Your task to perform on an android device: Show the shopping cart on newegg.com. Search for logitech g933 on newegg.com, select the first entry, add it to the cart, then select checkout. Image 0: 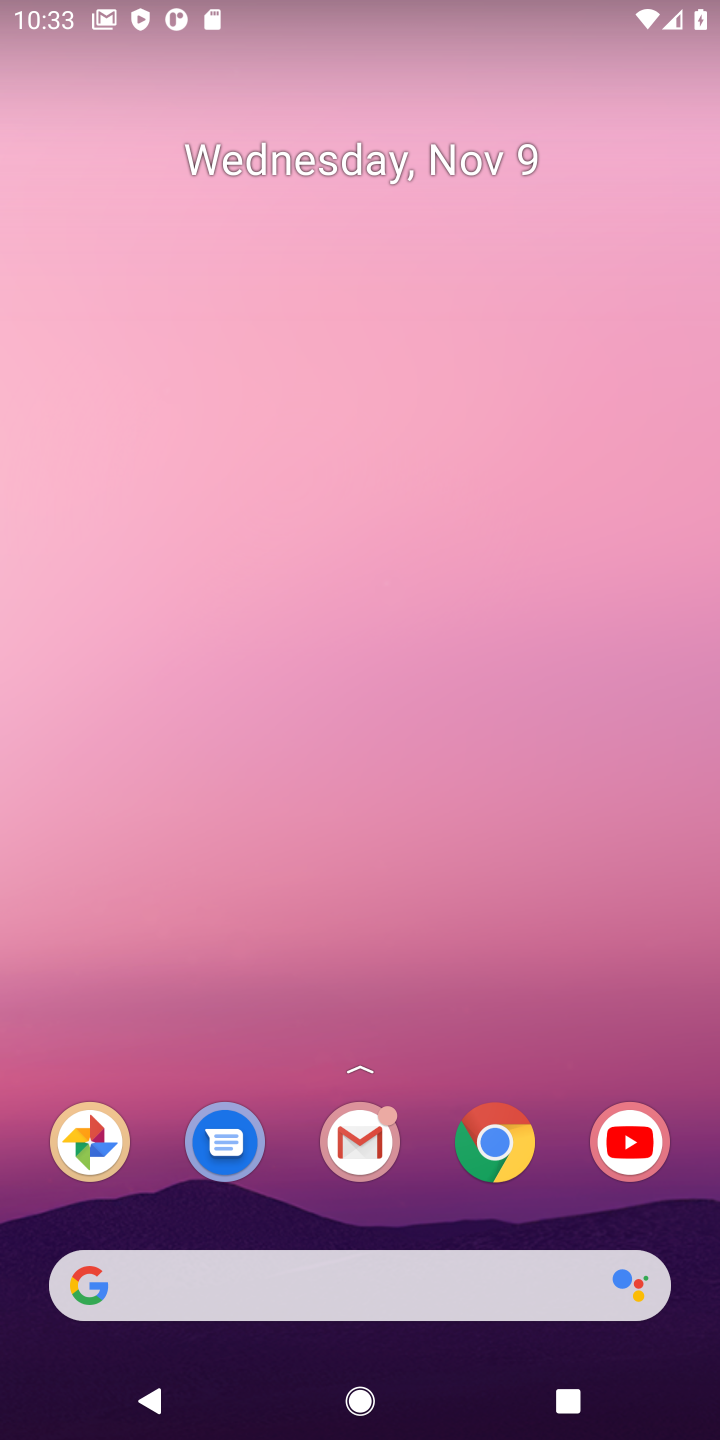
Step 0: press home button
Your task to perform on an android device: Show the shopping cart on newegg.com. Search for logitech g933 on newegg.com, select the first entry, add it to the cart, then select checkout. Image 1: 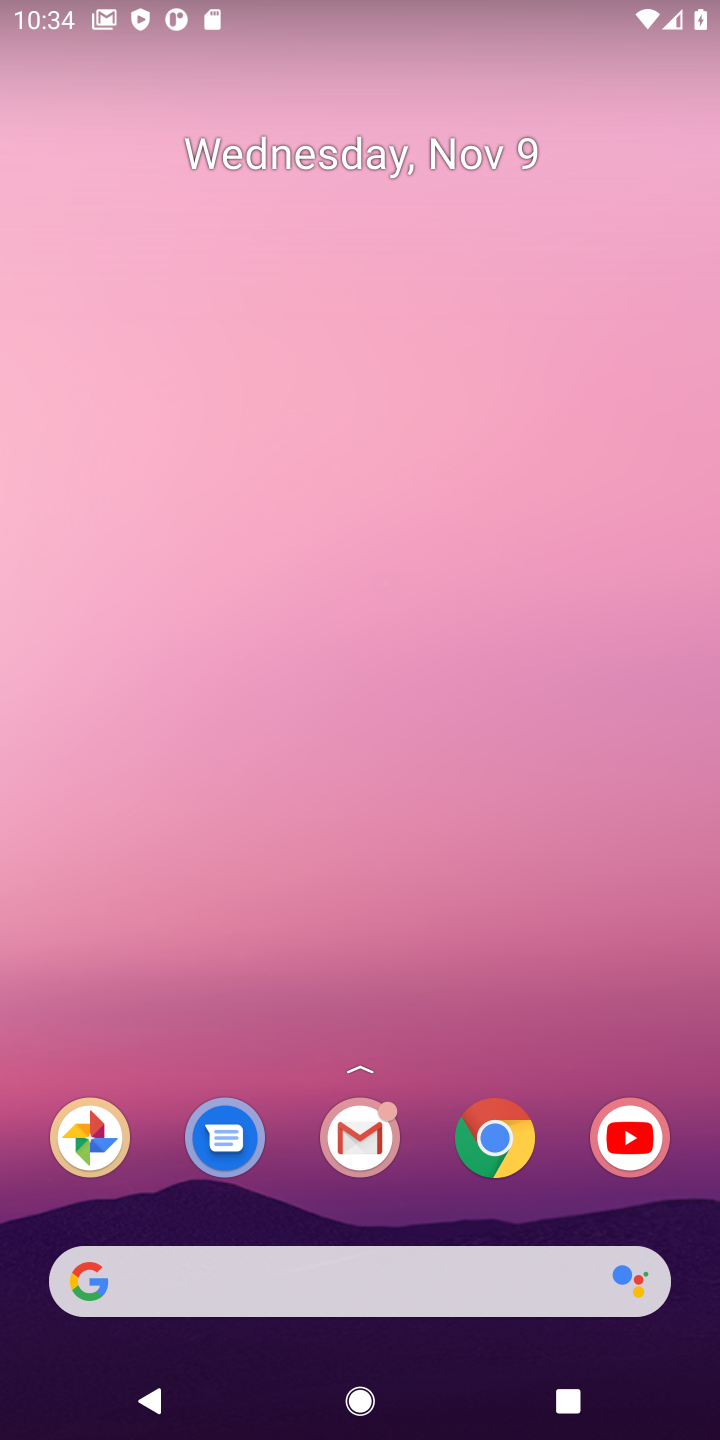
Step 1: drag from (461, 1071) to (688, 33)
Your task to perform on an android device: Show the shopping cart on newegg.com. Search for logitech g933 on newegg.com, select the first entry, add it to the cart, then select checkout. Image 2: 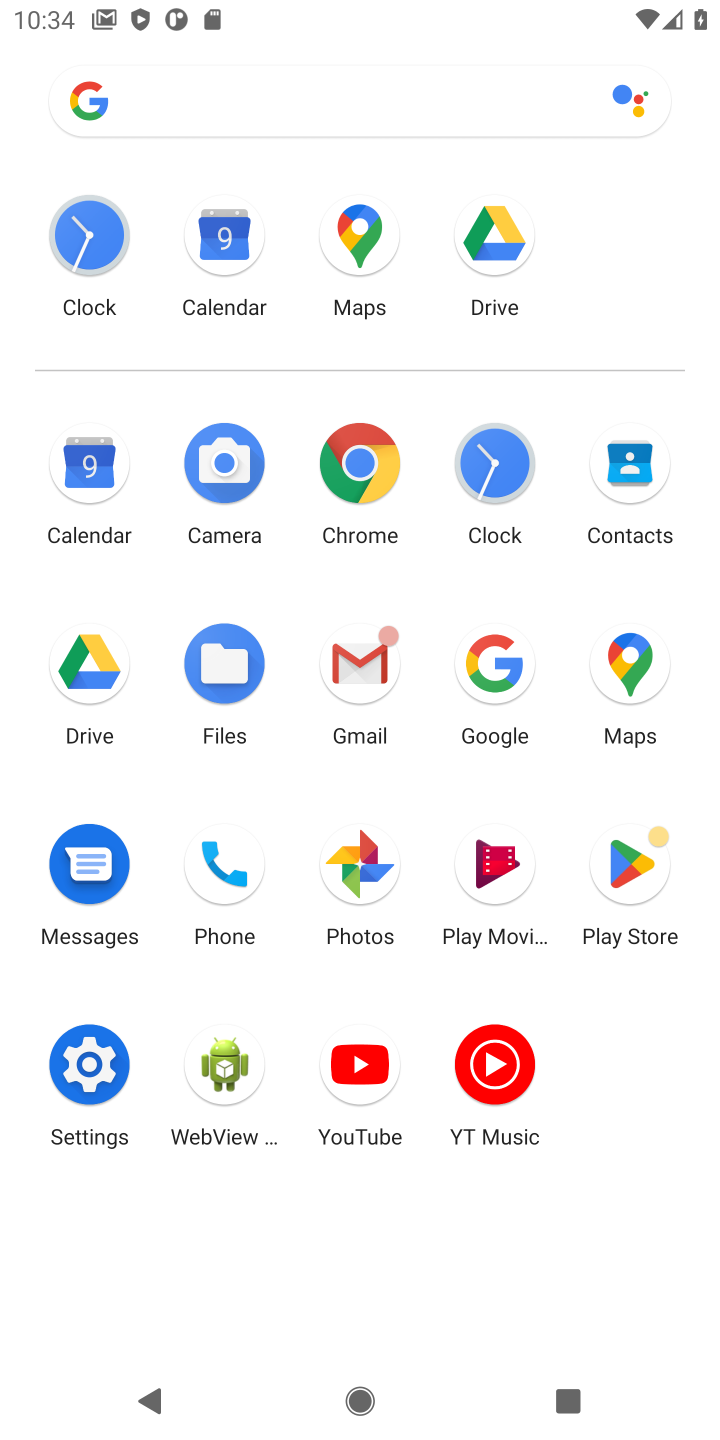
Step 2: click (360, 479)
Your task to perform on an android device: Show the shopping cart on newegg.com. Search for logitech g933 on newegg.com, select the first entry, add it to the cart, then select checkout. Image 3: 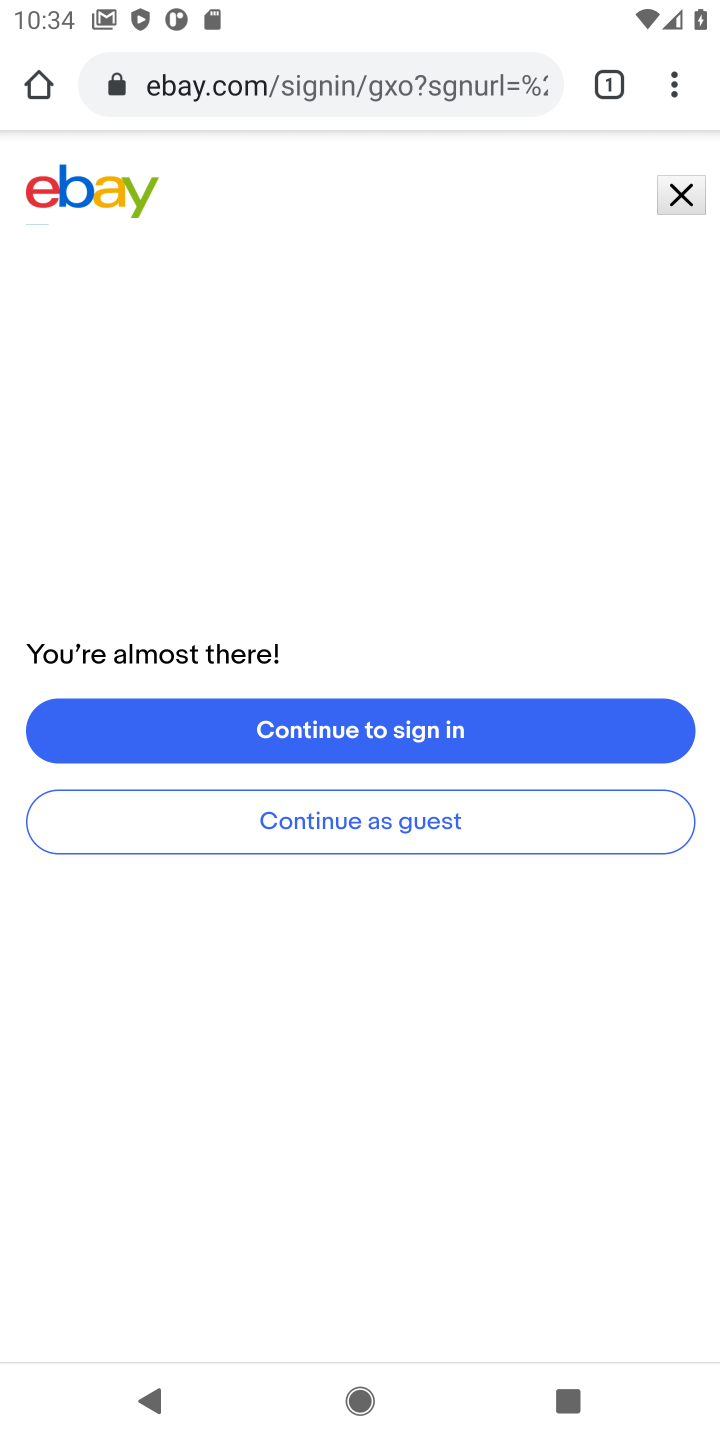
Step 3: click (351, 74)
Your task to perform on an android device: Show the shopping cart on newegg.com. Search for logitech g933 on newegg.com, select the first entry, add it to the cart, then select checkout. Image 4: 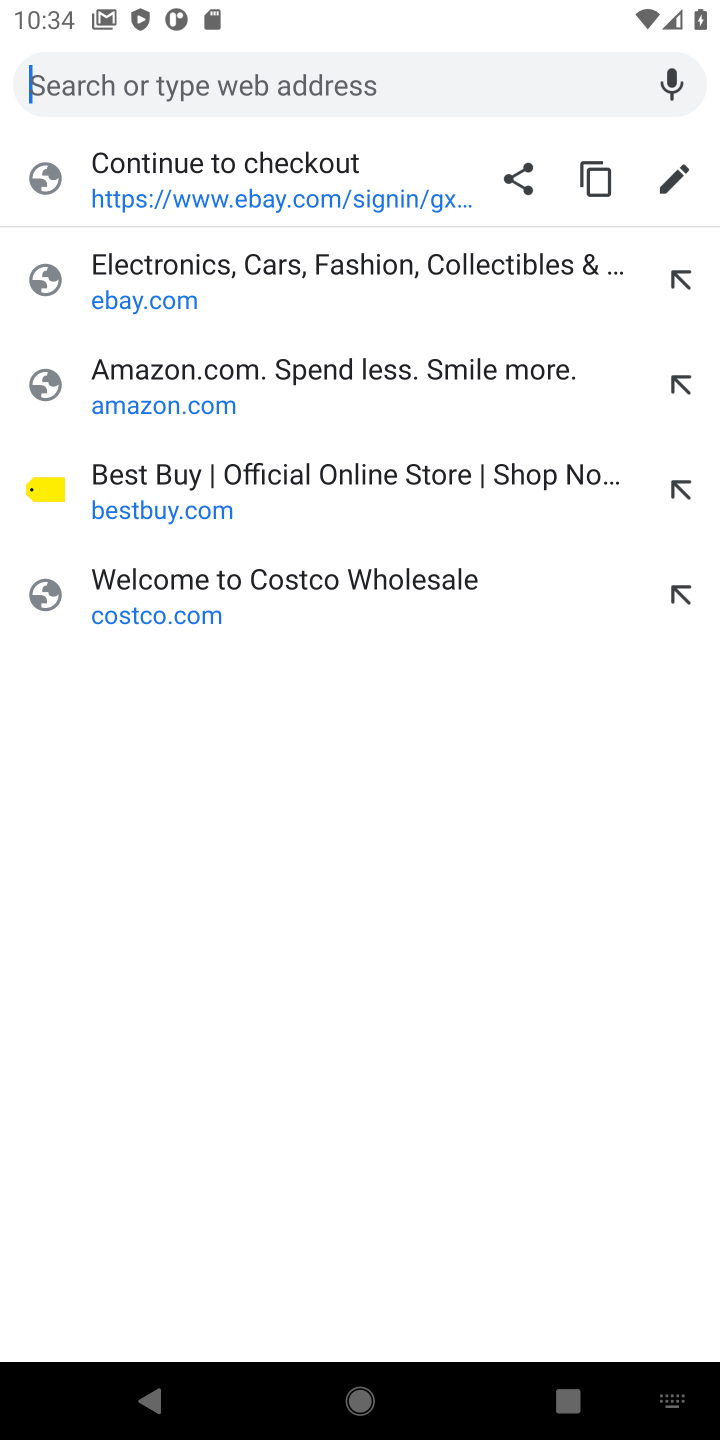
Step 4: type "newegg.com"
Your task to perform on an android device: Show the shopping cart on newegg.com. Search for logitech g933 on newegg.com, select the first entry, add it to the cart, then select checkout. Image 5: 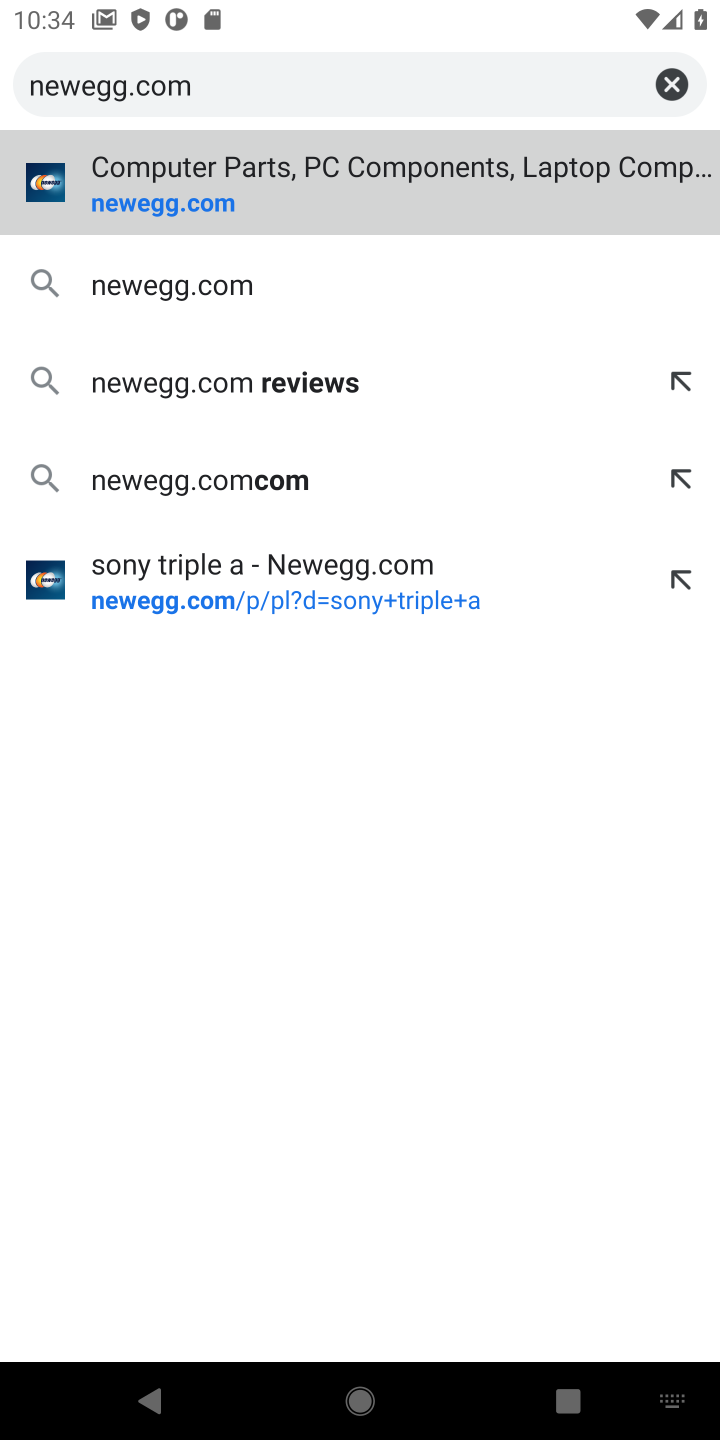
Step 5: press enter
Your task to perform on an android device: Show the shopping cart on newegg.com. Search for logitech g933 on newegg.com, select the first entry, add it to the cart, then select checkout. Image 6: 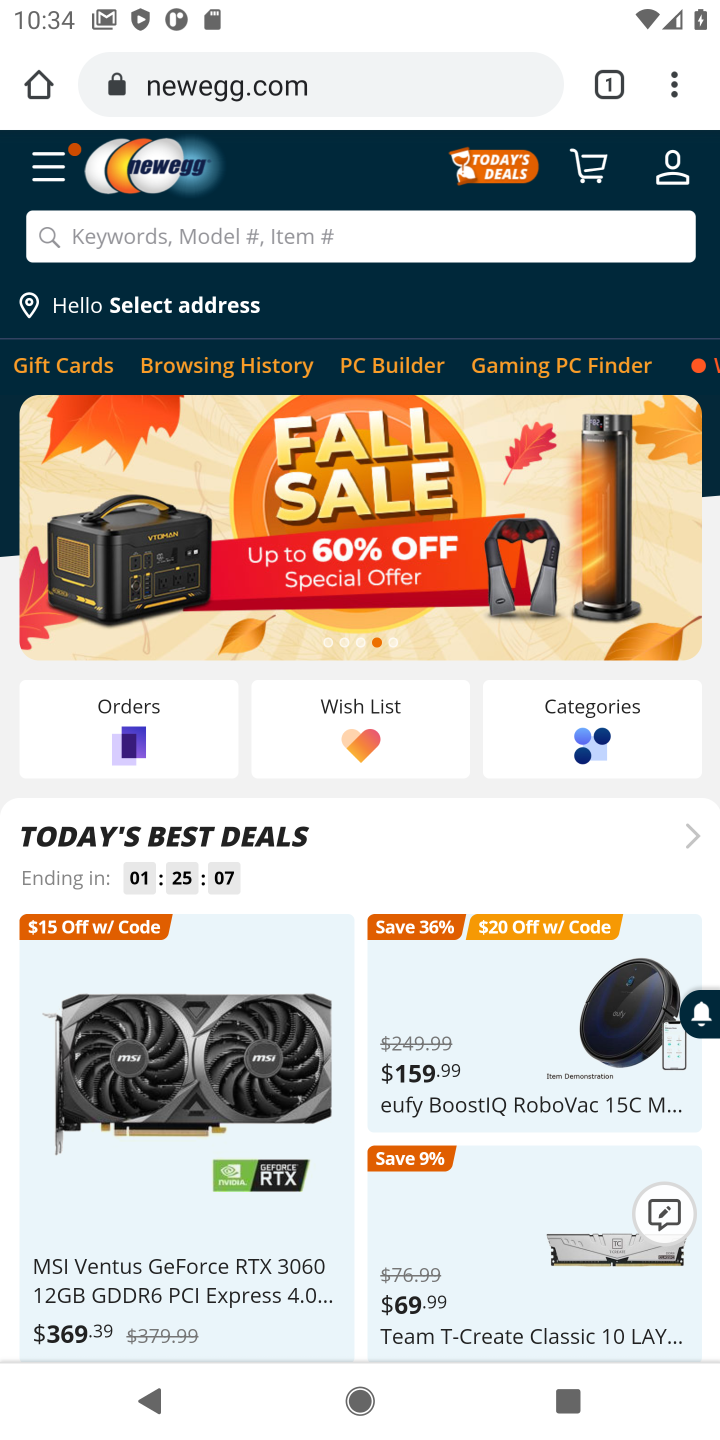
Step 6: click (418, 230)
Your task to perform on an android device: Show the shopping cart on newegg.com. Search for logitech g933 on newegg.com, select the first entry, add it to the cart, then select checkout. Image 7: 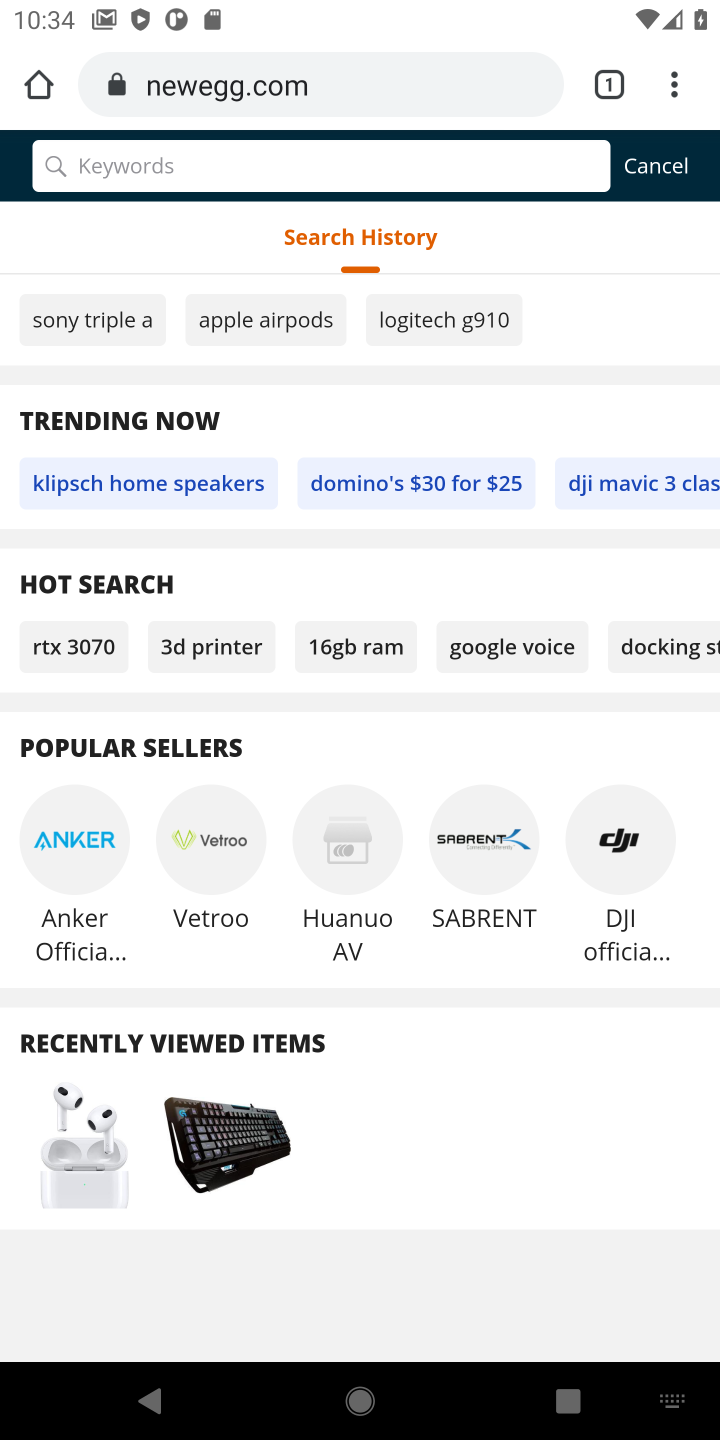
Step 7: click (651, 174)
Your task to perform on an android device: Show the shopping cart on newegg.com. Search for logitech g933 on newegg.com, select the first entry, add it to the cart, then select checkout. Image 8: 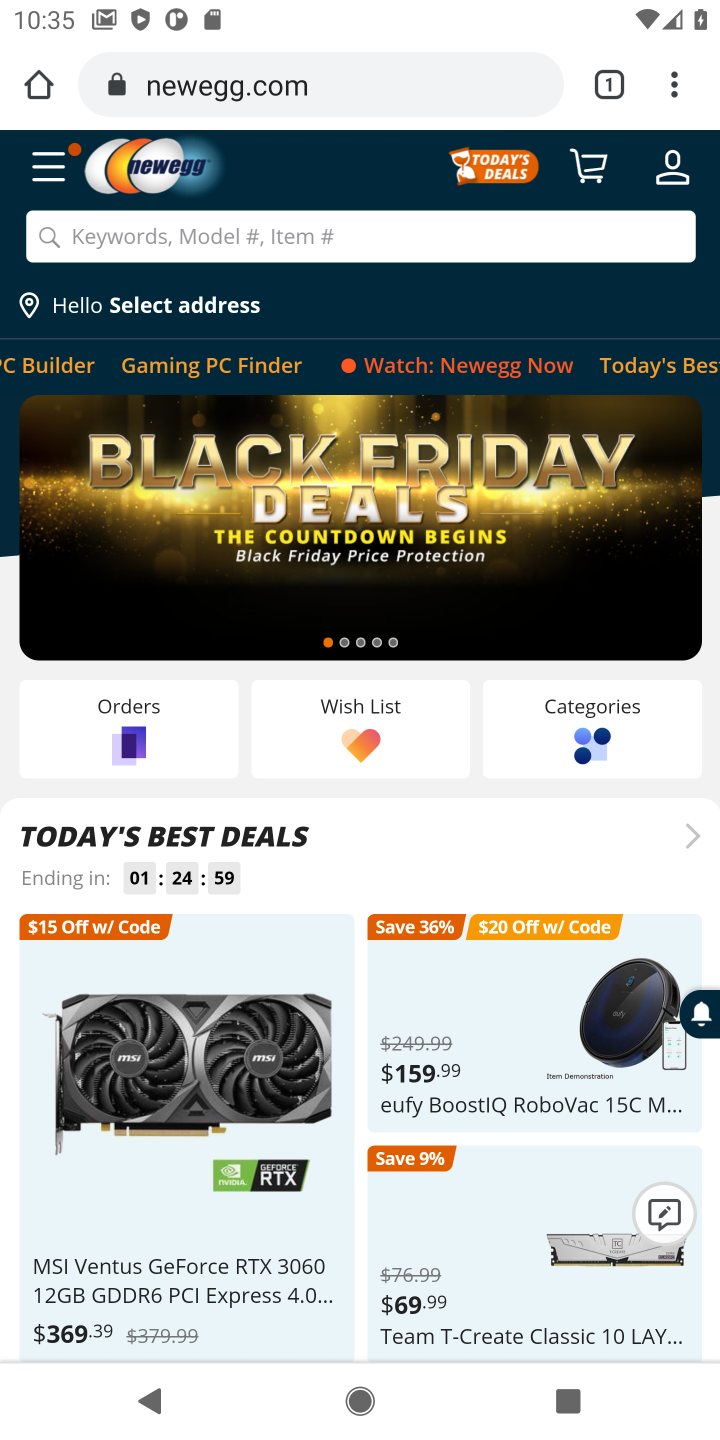
Step 8: click (651, 178)
Your task to perform on an android device: Show the shopping cart on newegg.com. Search for logitech g933 on newegg.com, select the first entry, add it to the cart, then select checkout. Image 9: 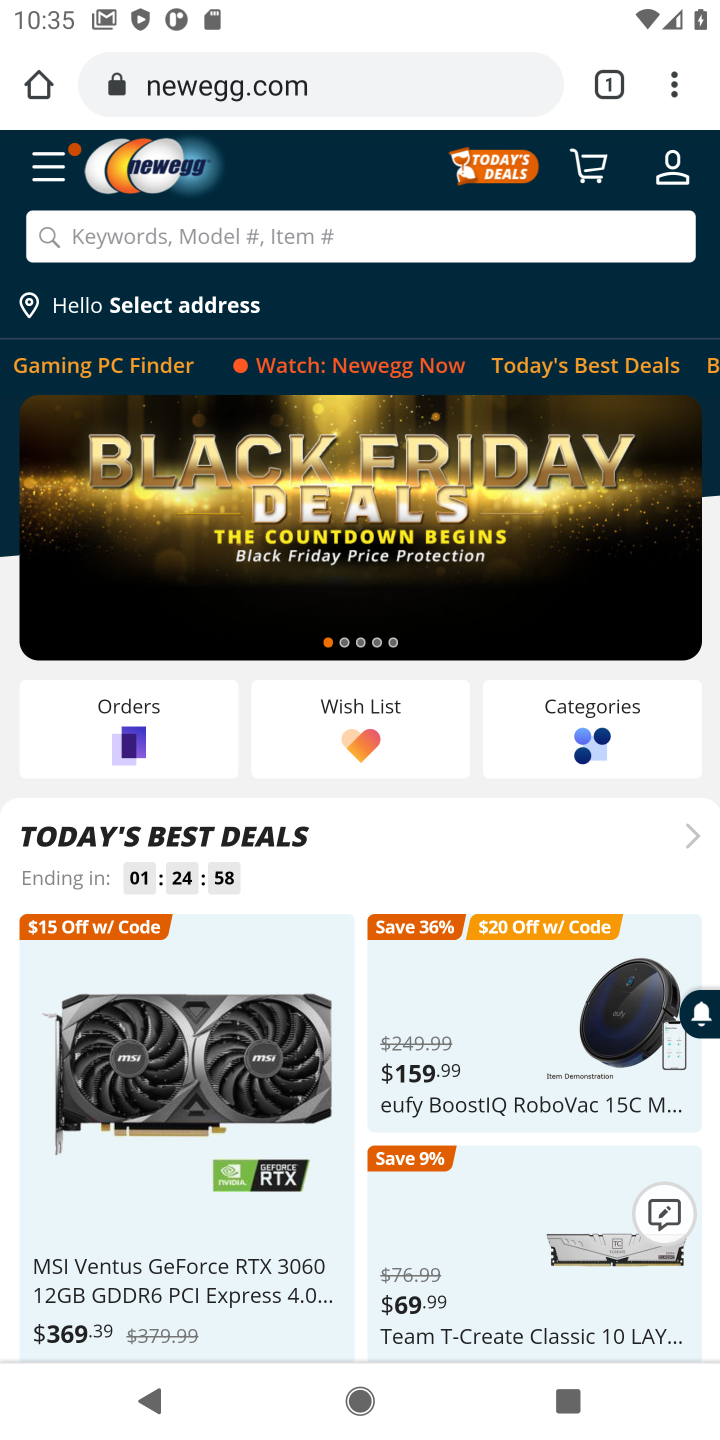
Step 9: click (588, 166)
Your task to perform on an android device: Show the shopping cart on newegg.com. Search for logitech g933 on newegg.com, select the first entry, add it to the cart, then select checkout. Image 10: 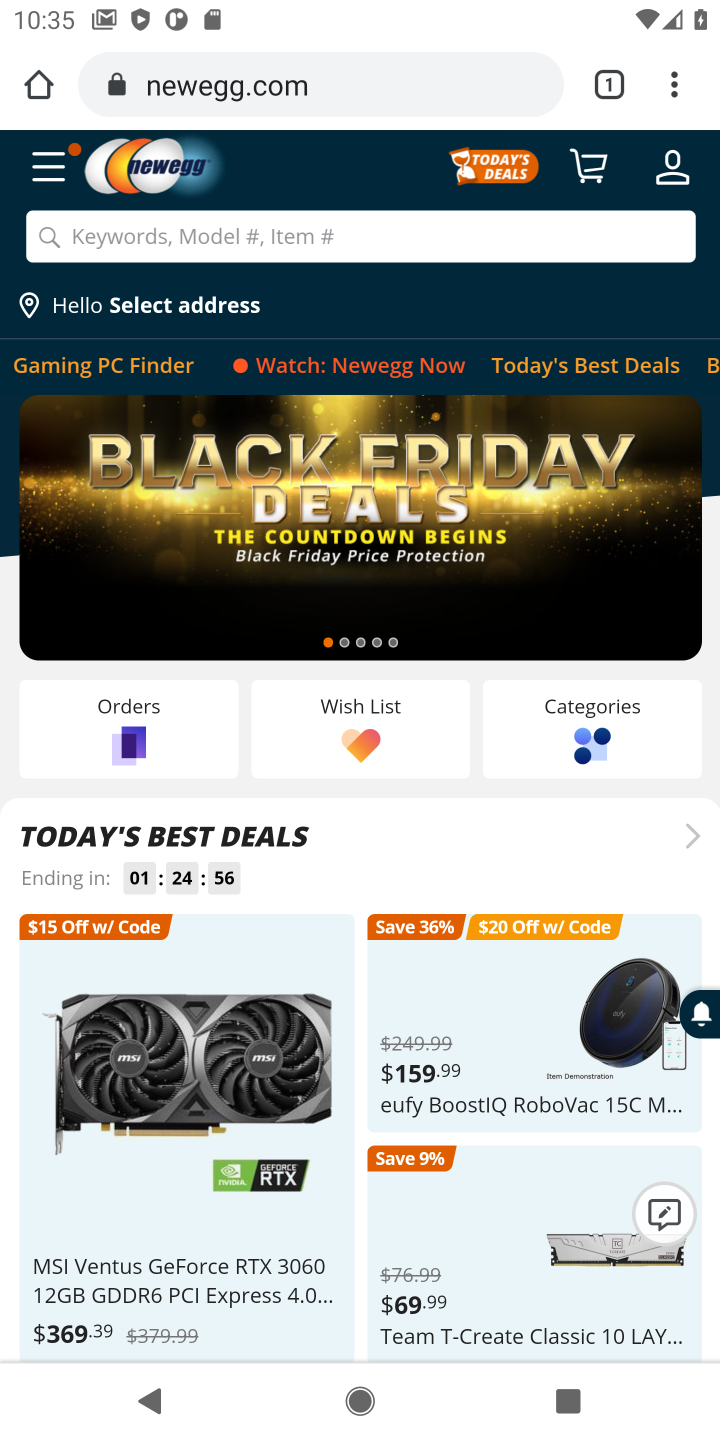
Step 10: click (588, 166)
Your task to perform on an android device: Show the shopping cart on newegg.com. Search for logitech g933 on newegg.com, select the first entry, add it to the cart, then select checkout. Image 11: 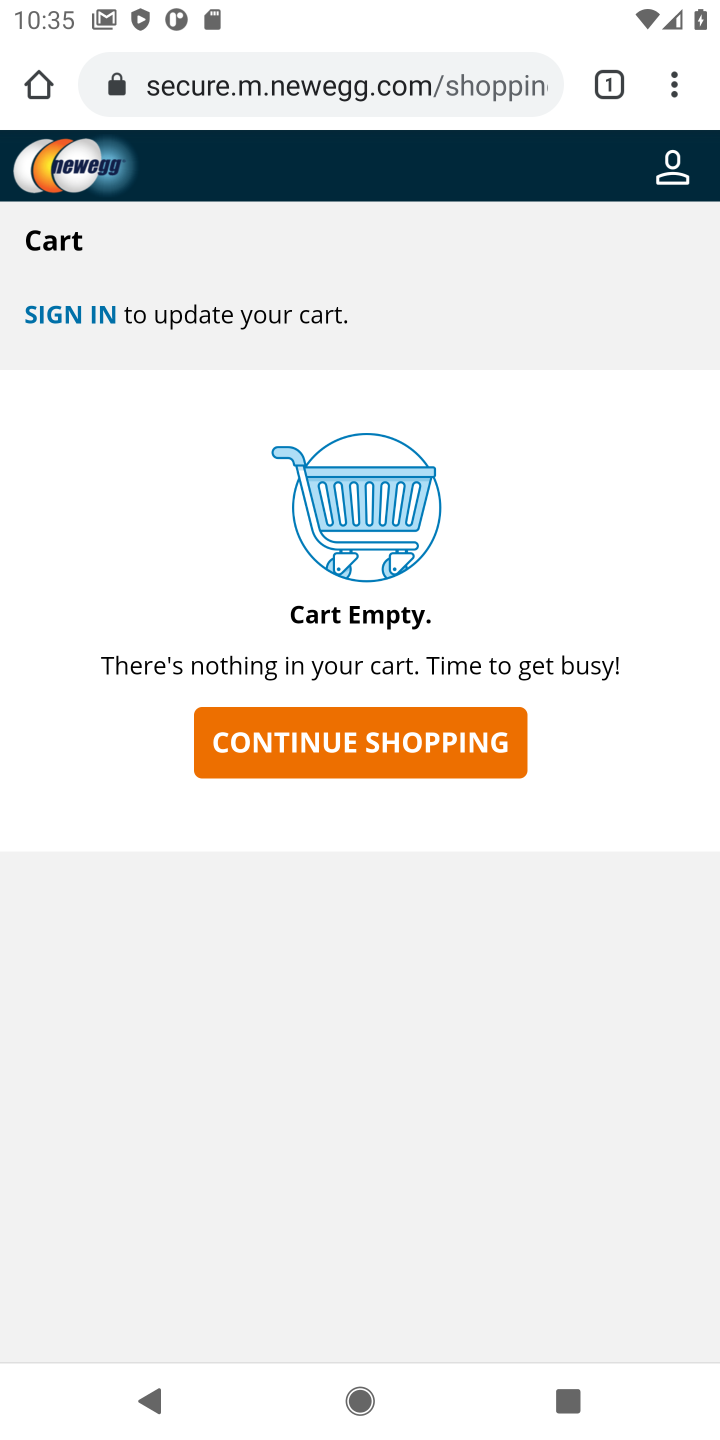
Step 11: click (417, 735)
Your task to perform on an android device: Show the shopping cart on newegg.com. Search for logitech g933 on newegg.com, select the first entry, add it to the cart, then select checkout. Image 12: 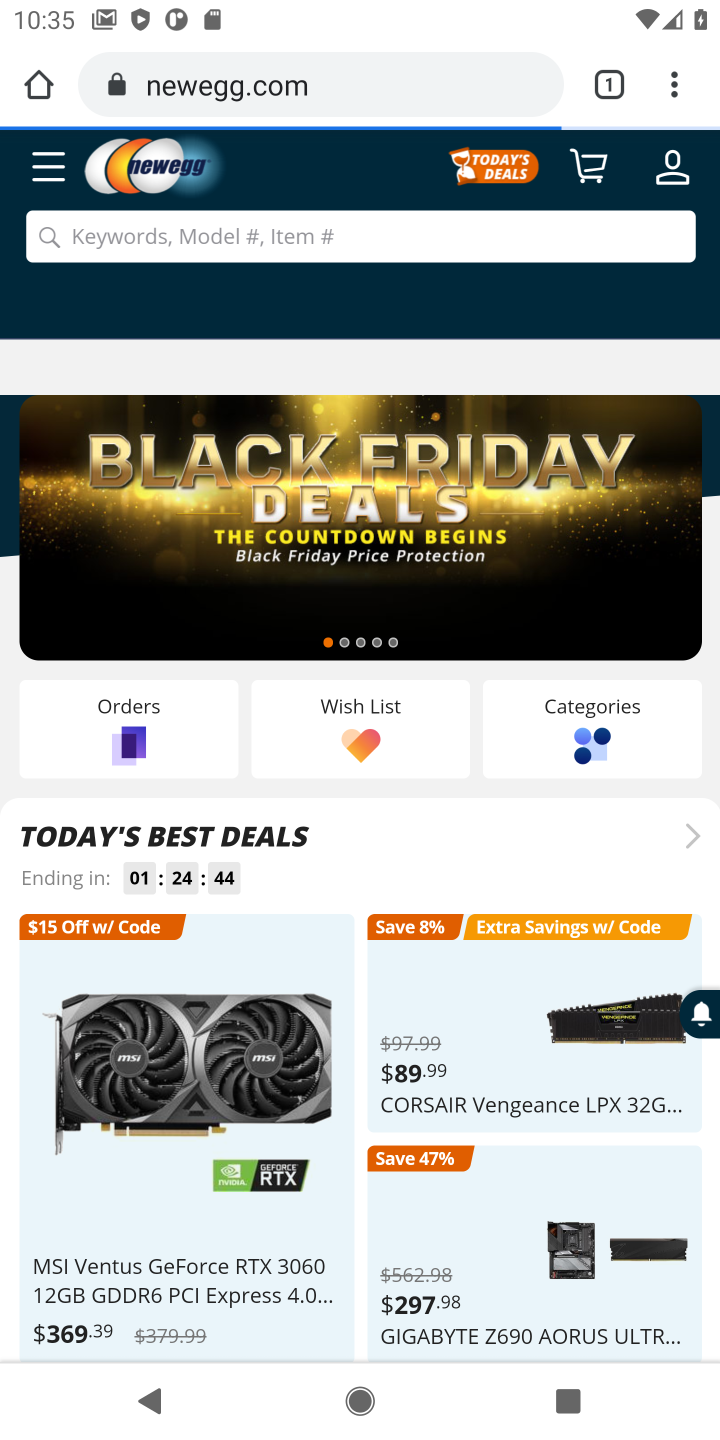
Step 12: click (237, 217)
Your task to perform on an android device: Show the shopping cart on newegg.com. Search for logitech g933 on newegg.com, select the first entry, add it to the cart, then select checkout. Image 13: 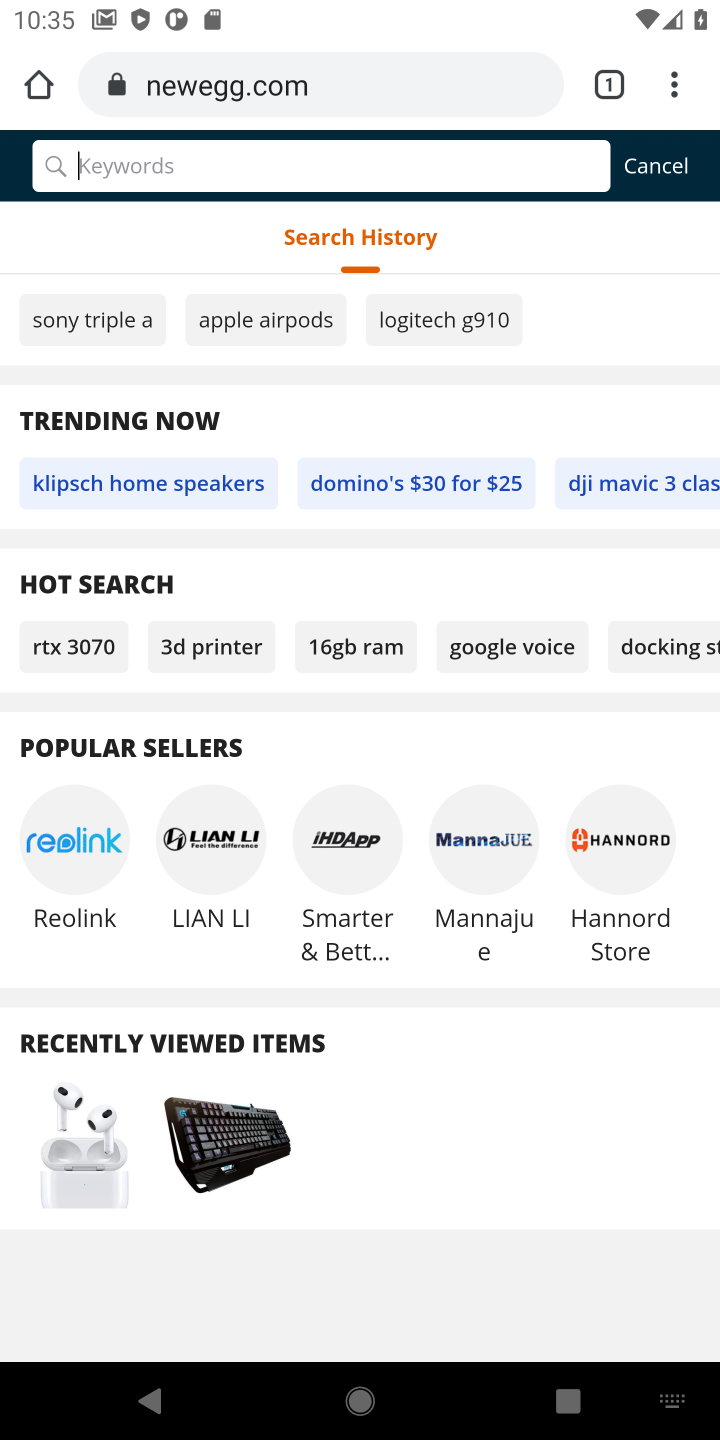
Step 13: type "logitech g933"
Your task to perform on an android device: Show the shopping cart on newegg.com. Search for logitech g933 on newegg.com, select the first entry, add it to the cart, then select checkout. Image 14: 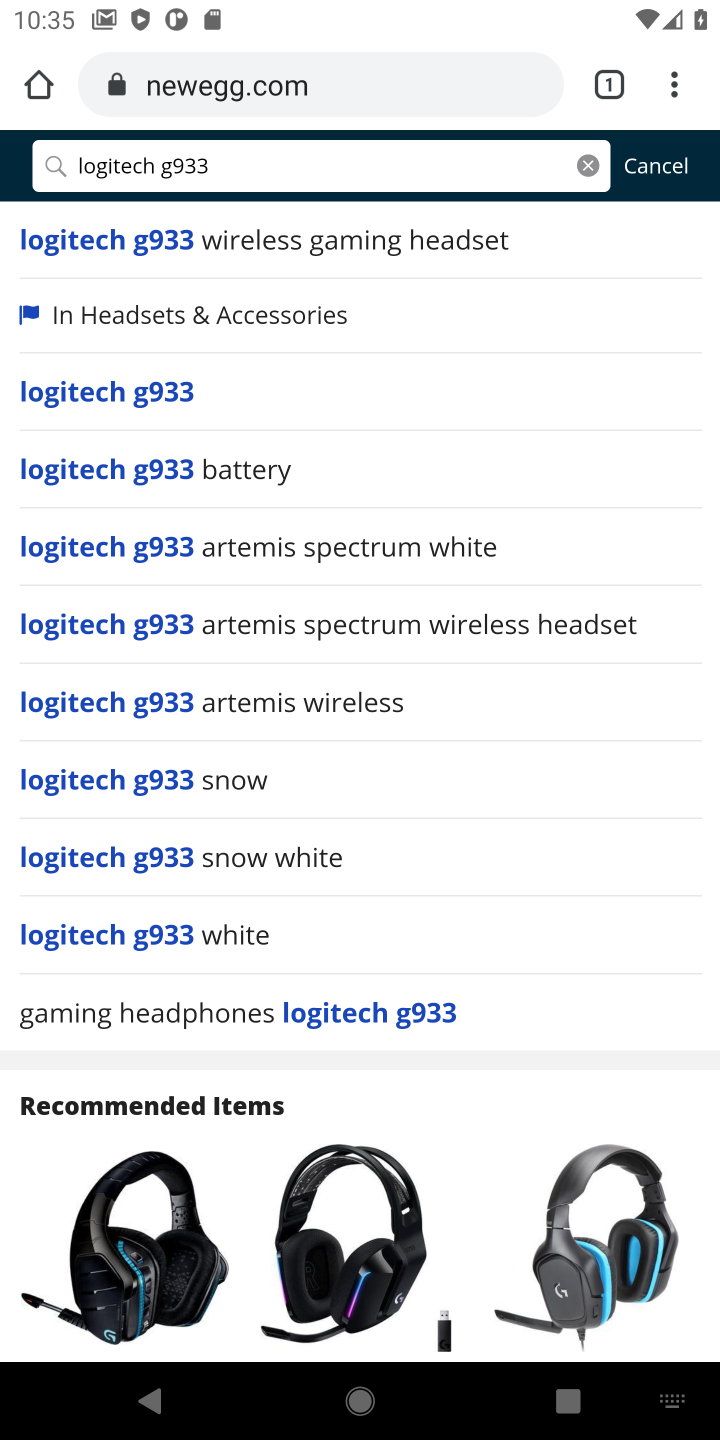
Step 14: press enter
Your task to perform on an android device: Show the shopping cart on newegg.com. Search for logitech g933 on newegg.com, select the first entry, add it to the cart, then select checkout. Image 15: 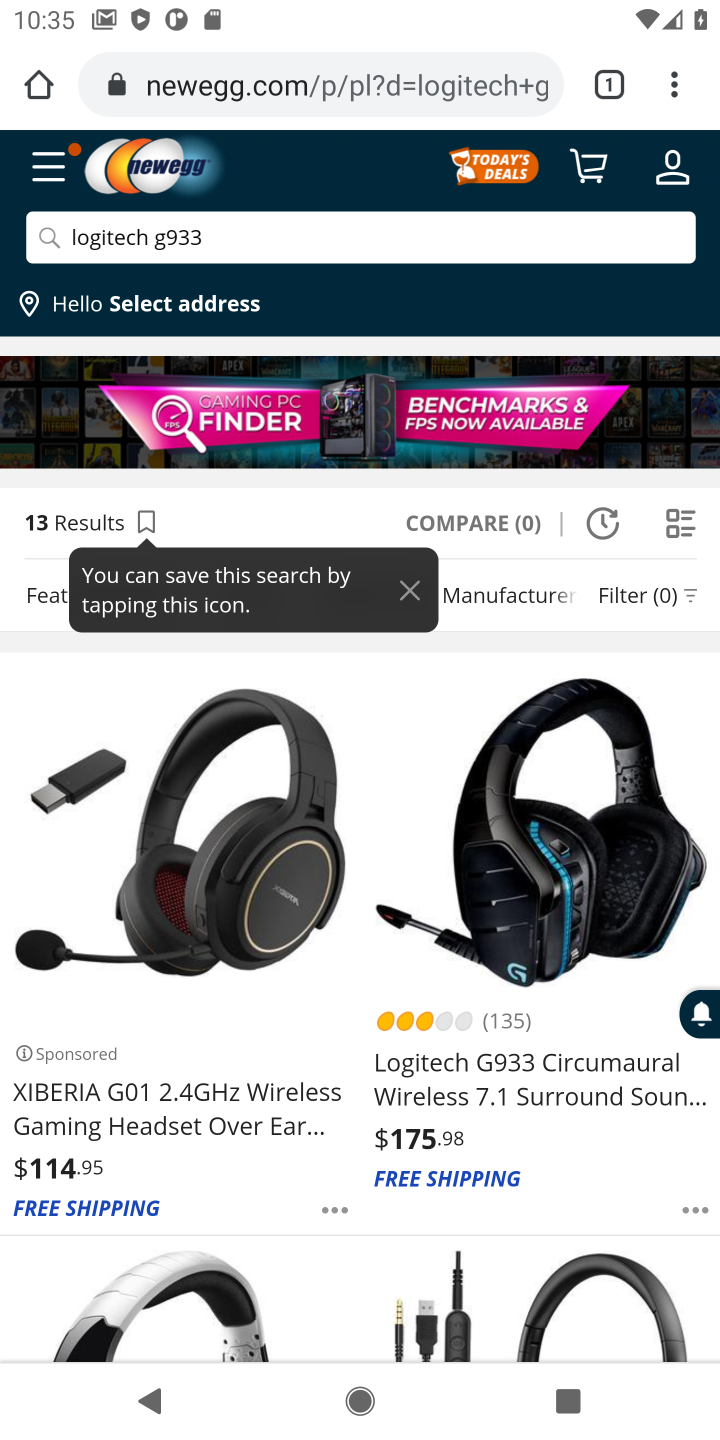
Step 15: drag from (348, 1088) to (352, 696)
Your task to perform on an android device: Show the shopping cart on newegg.com. Search for logitech g933 on newegg.com, select the first entry, add it to the cart, then select checkout. Image 16: 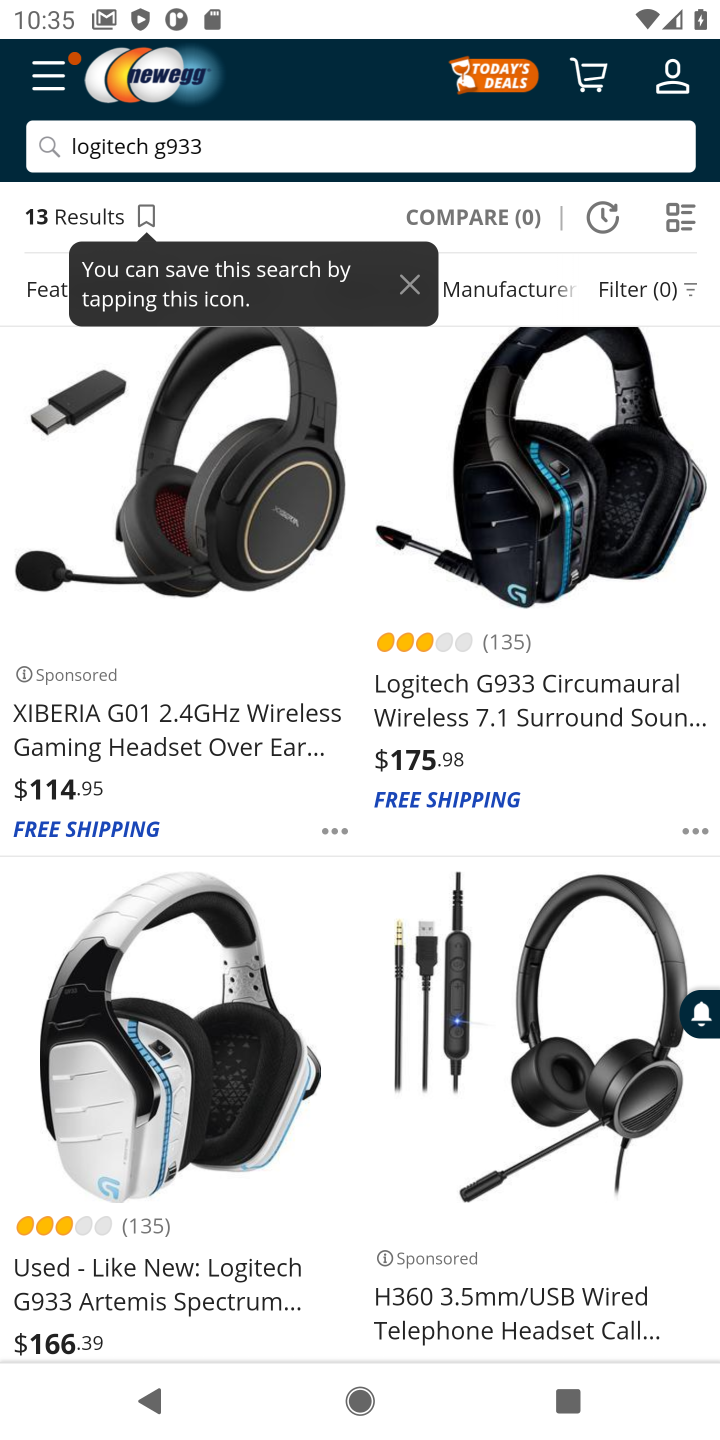
Step 16: click (582, 670)
Your task to perform on an android device: Show the shopping cart on newegg.com. Search for logitech g933 on newegg.com, select the first entry, add it to the cart, then select checkout. Image 17: 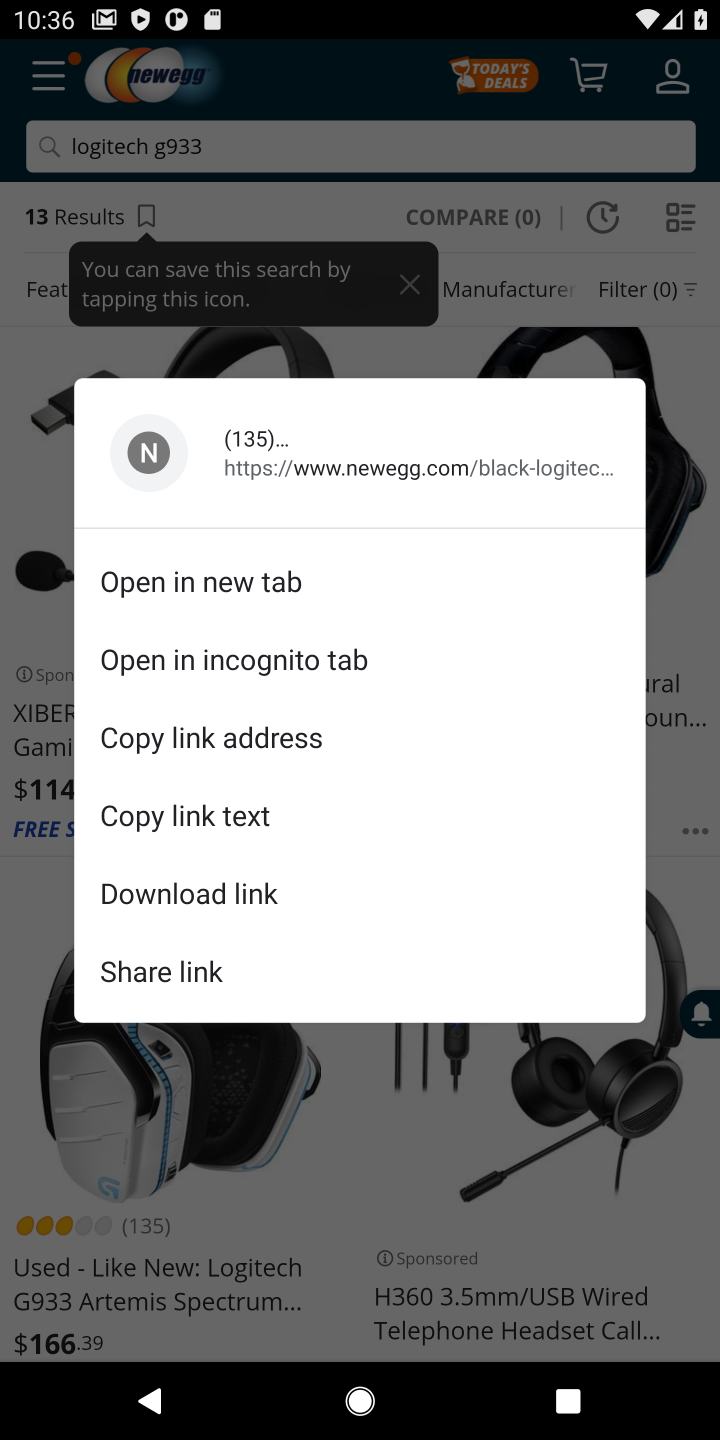
Step 17: click (520, 185)
Your task to perform on an android device: Show the shopping cart on newegg.com. Search for logitech g933 on newegg.com, select the first entry, add it to the cart, then select checkout. Image 18: 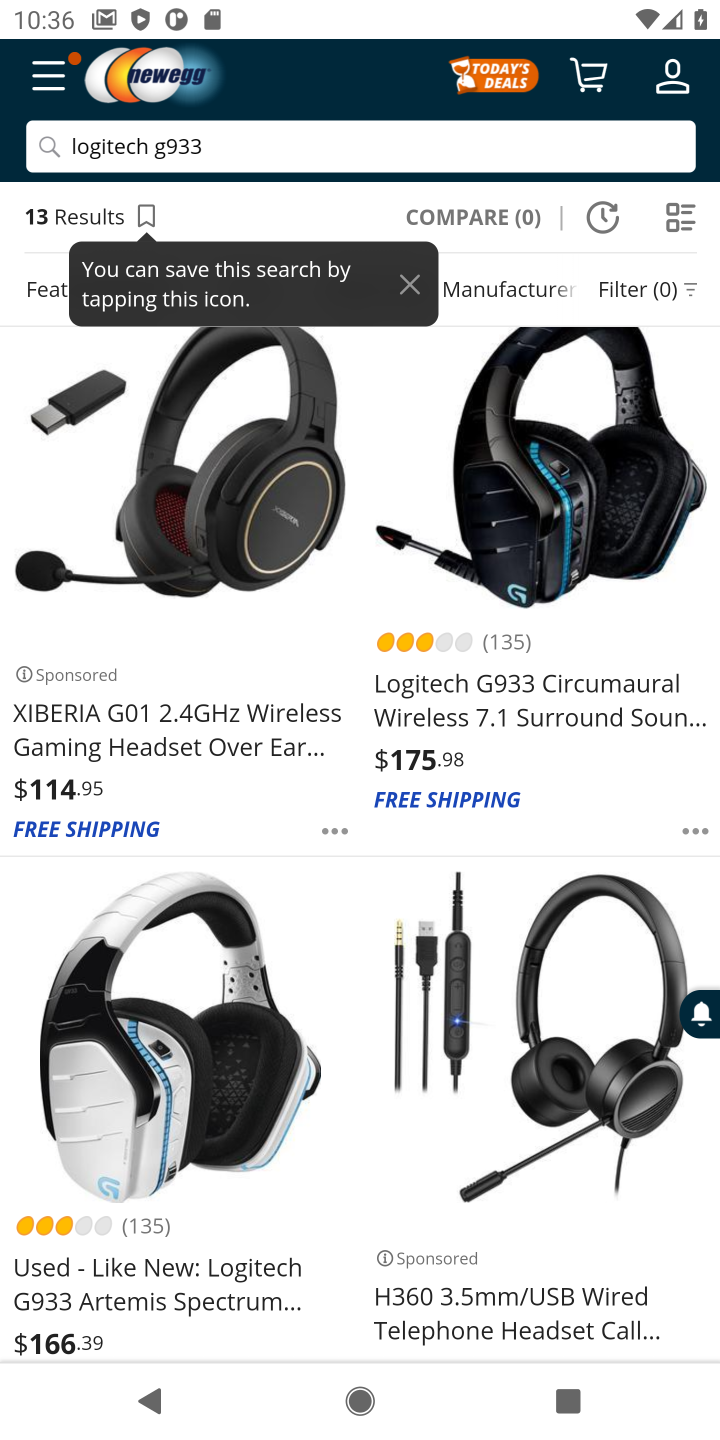
Step 18: click (515, 707)
Your task to perform on an android device: Show the shopping cart on newegg.com. Search for logitech g933 on newegg.com, select the first entry, add it to the cart, then select checkout. Image 19: 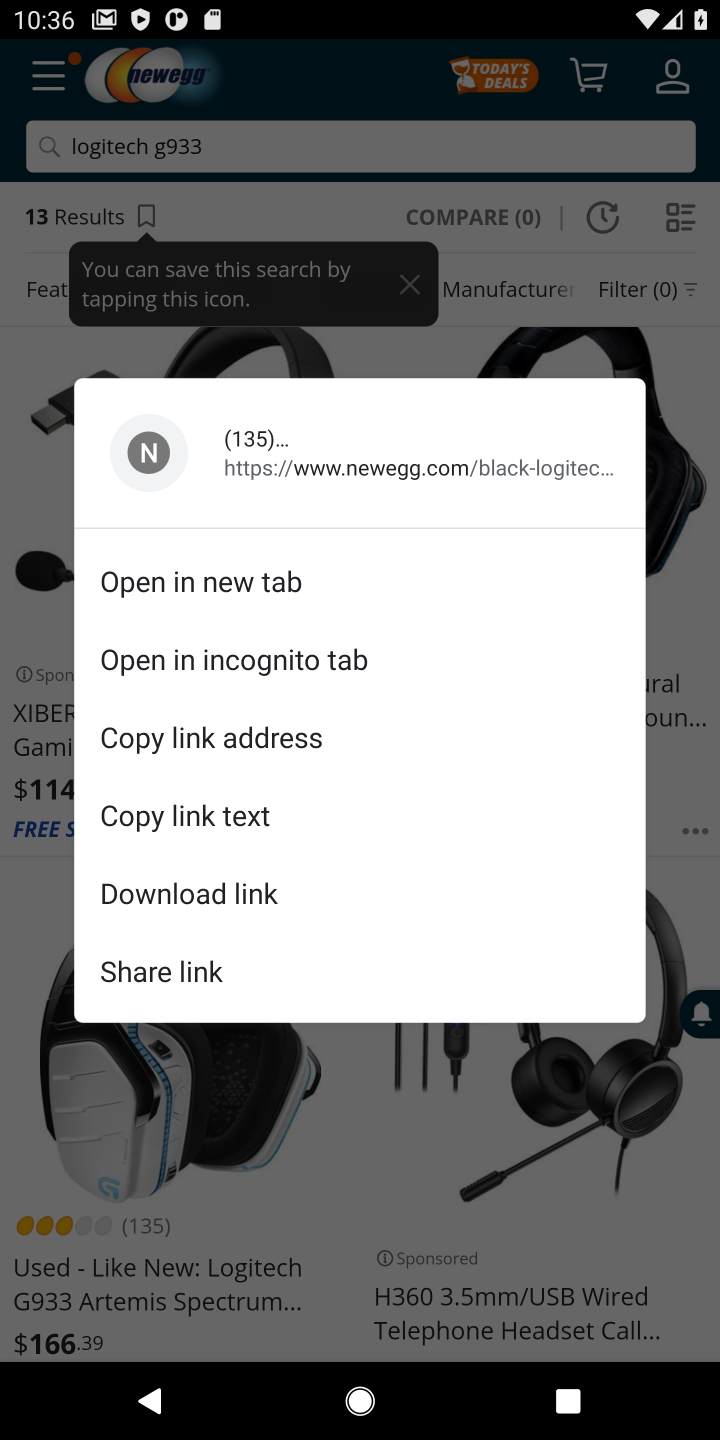
Step 19: click (669, 661)
Your task to perform on an android device: Show the shopping cart on newegg.com. Search for logitech g933 on newegg.com, select the first entry, add it to the cart, then select checkout. Image 20: 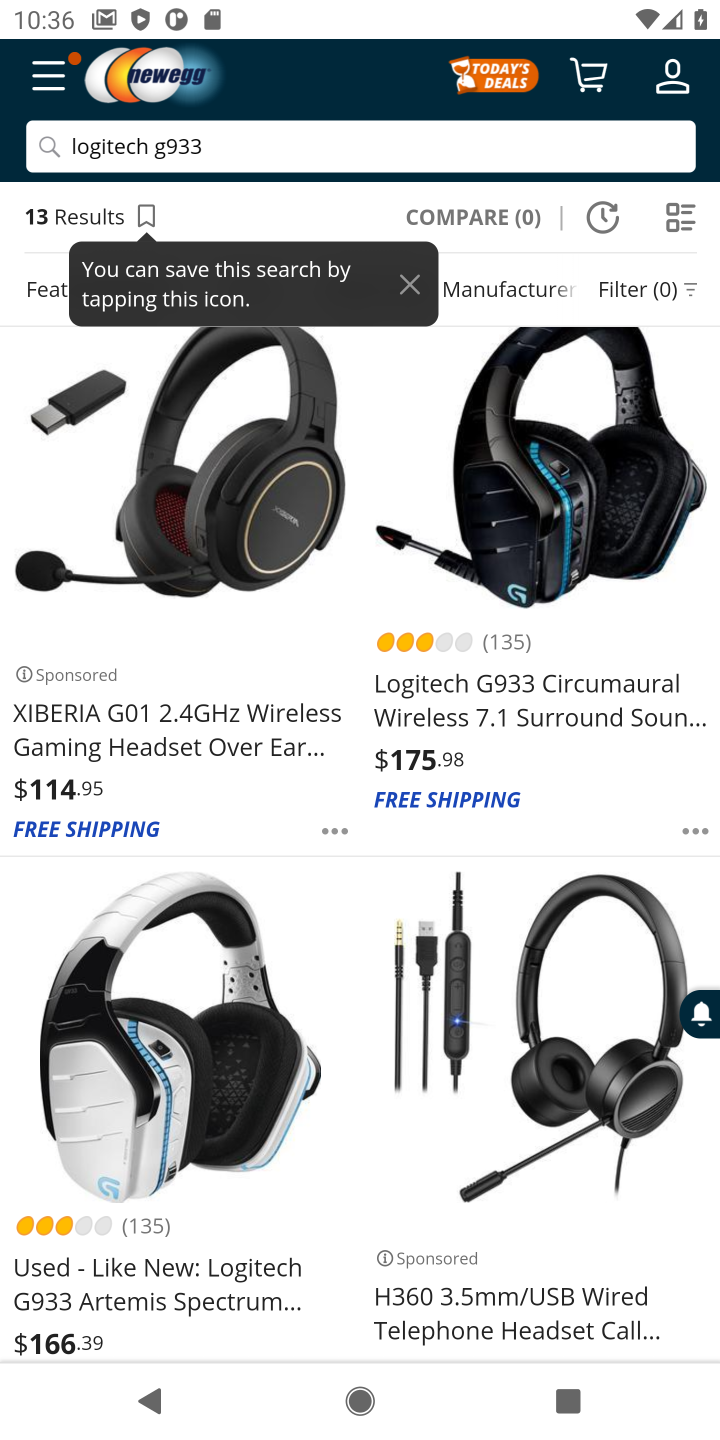
Step 20: click (608, 702)
Your task to perform on an android device: Show the shopping cart on newegg.com. Search for logitech g933 on newegg.com, select the first entry, add it to the cart, then select checkout. Image 21: 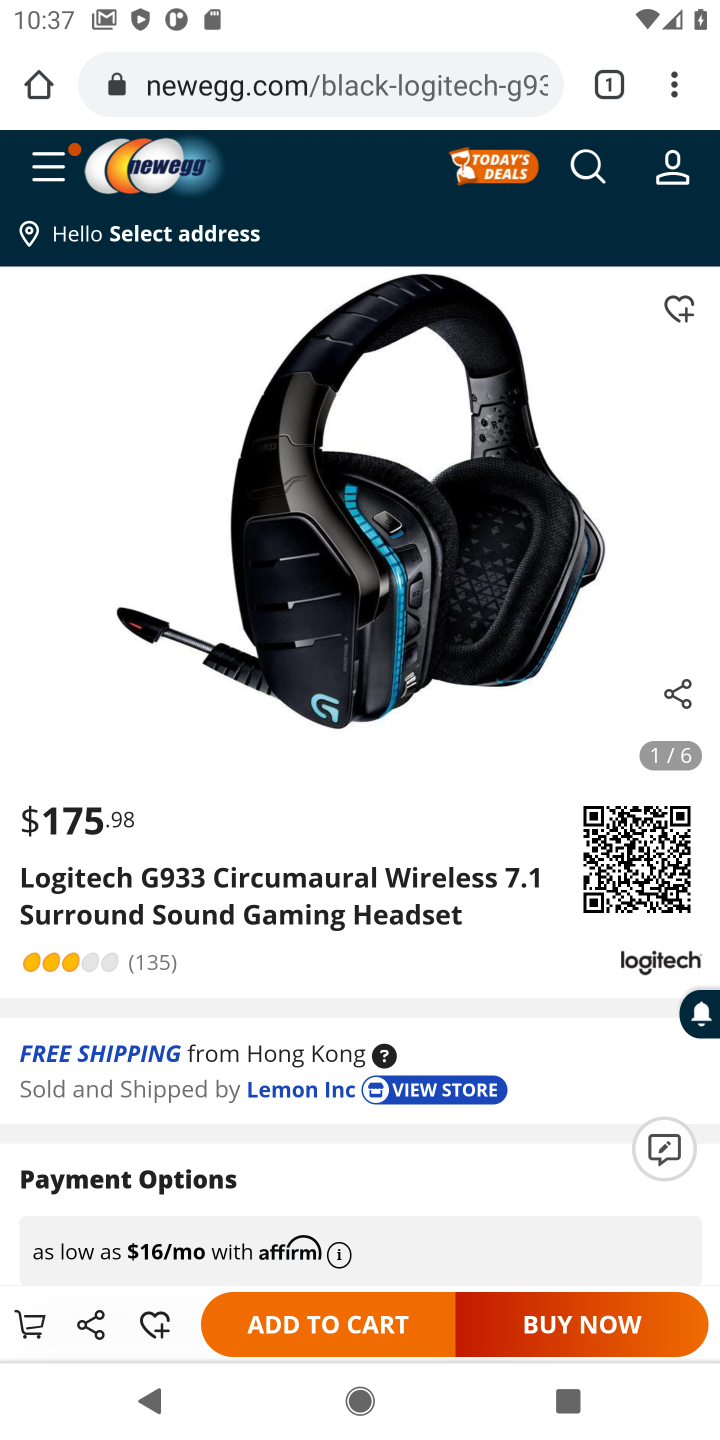
Step 21: click (318, 1315)
Your task to perform on an android device: Show the shopping cart on newegg.com. Search for logitech g933 on newegg.com, select the first entry, add it to the cart, then select checkout. Image 22: 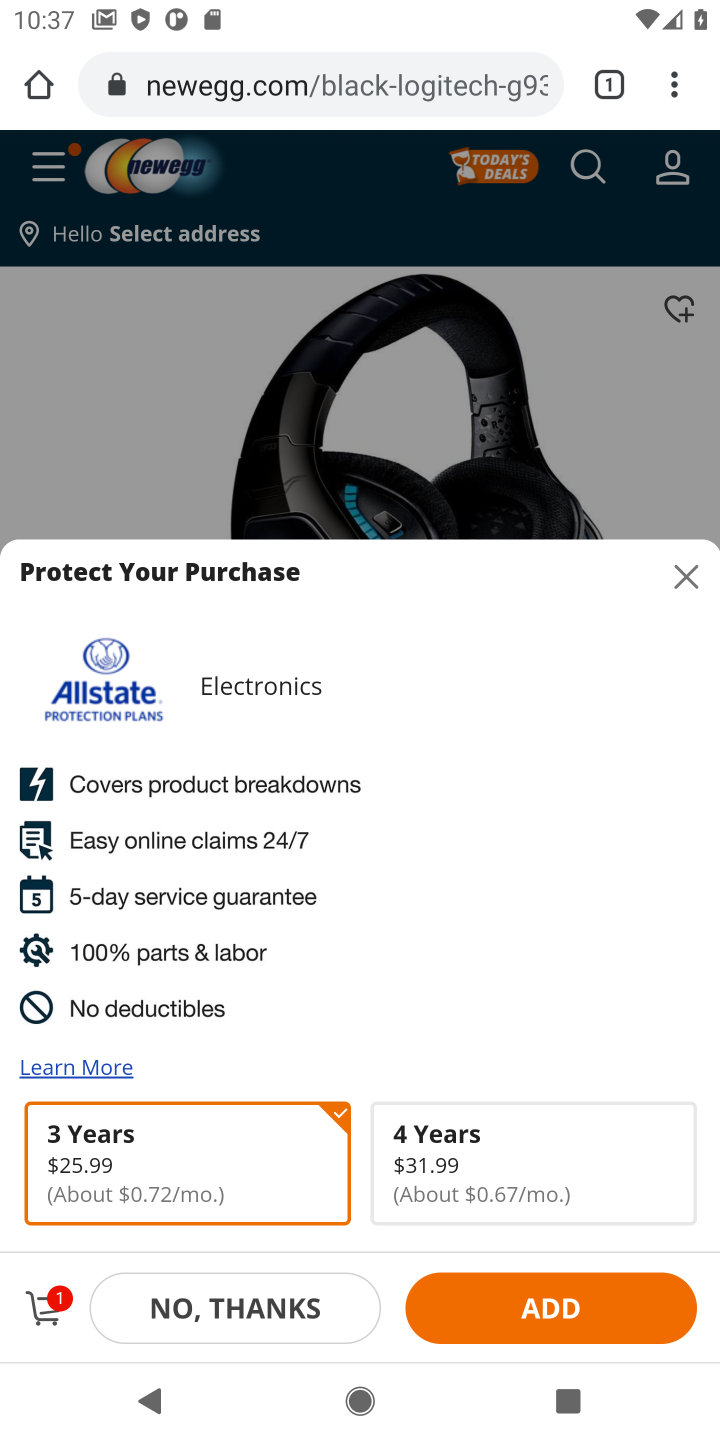
Step 22: click (53, 1288)
Your task to perform on an android device: Show the shopping cart on newegg.com. Search for logitech g933 on newegg.com, select the first entry, add it to the cart, then select checkout. Image 23: 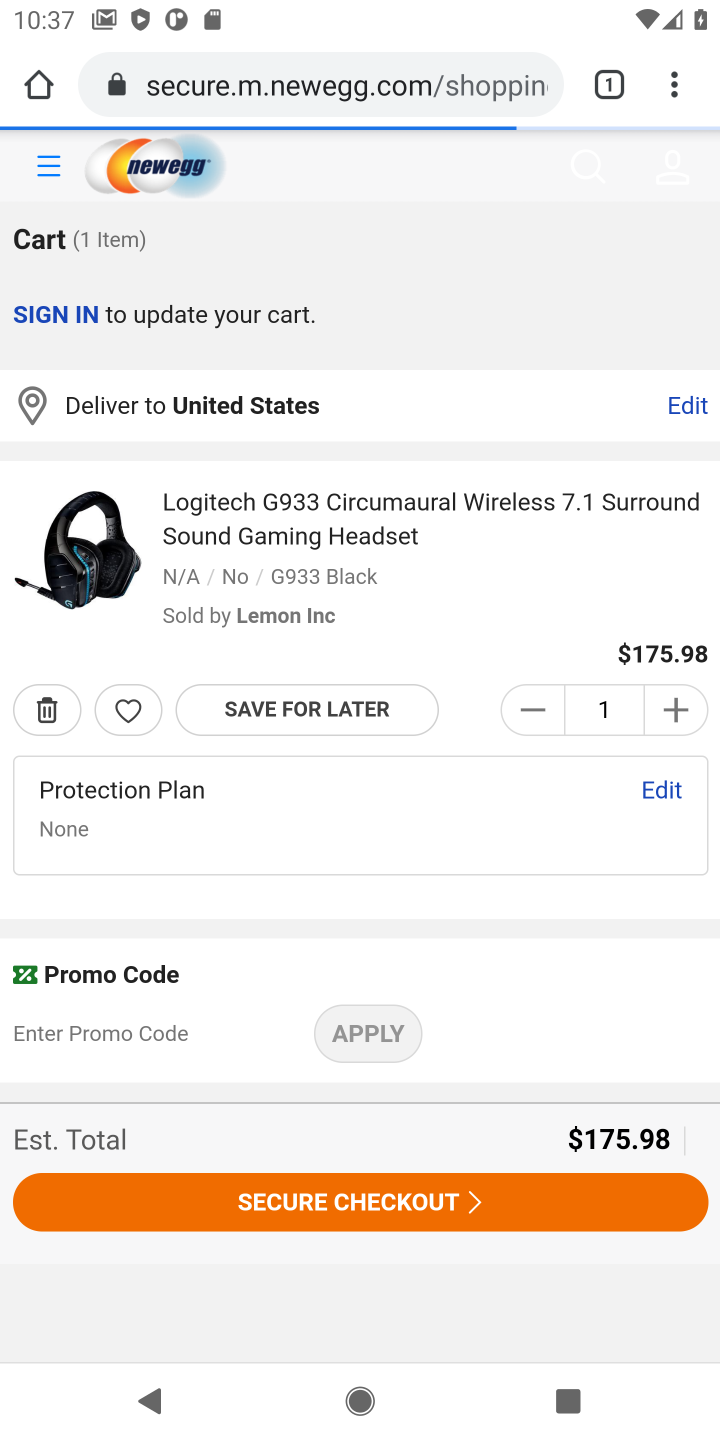
Step 23: click (456, 1198)
Your task to perform on an android device: Show the shopping cart on newegg.com. Search for logitech g933 on newegg.com, select the first entry, add it to the cart, then select checkout. Image 24: 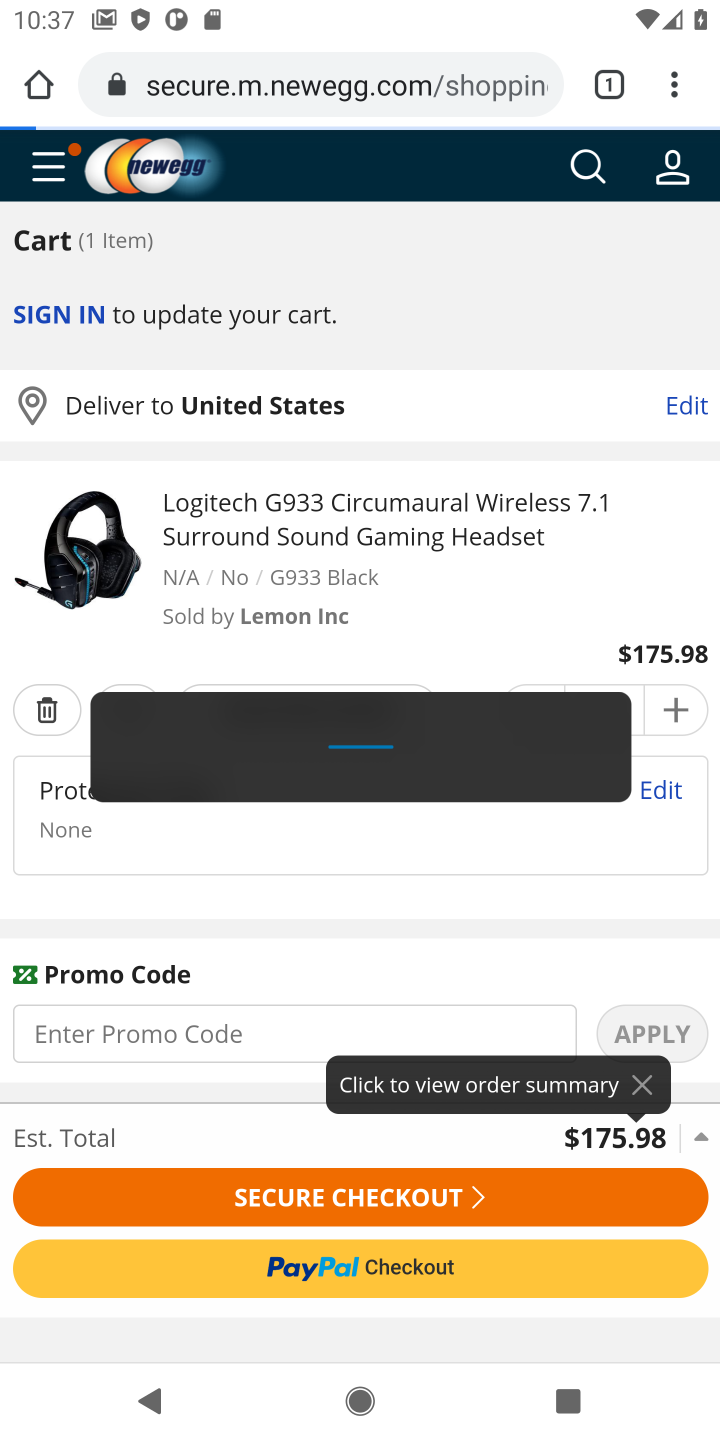
Step 24: task complete